Your task to perform on an android device: Open the web browser Image 0: 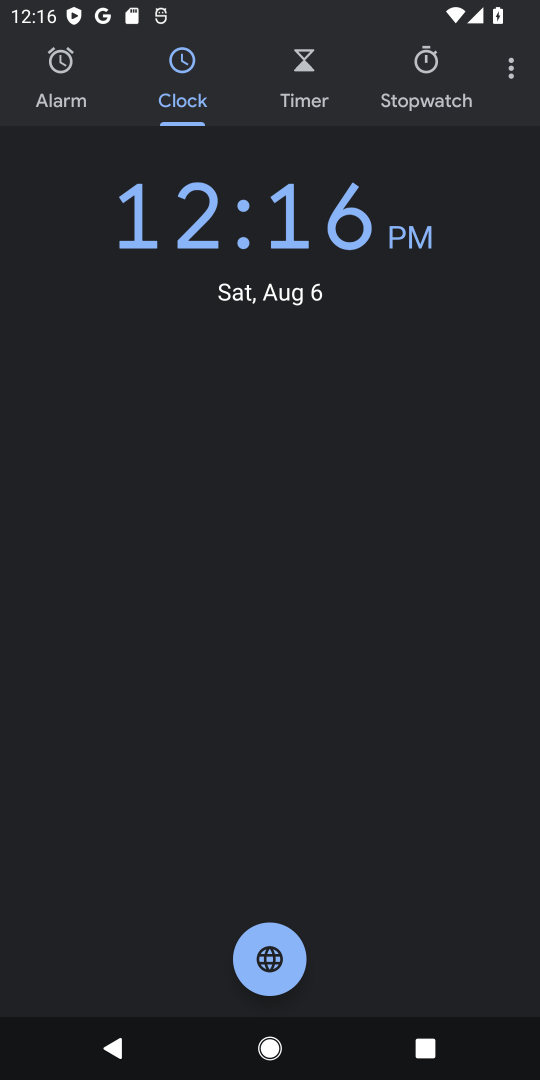
Step 0: press home button
Your task to perform on an android device: Open the web browser Image 1: 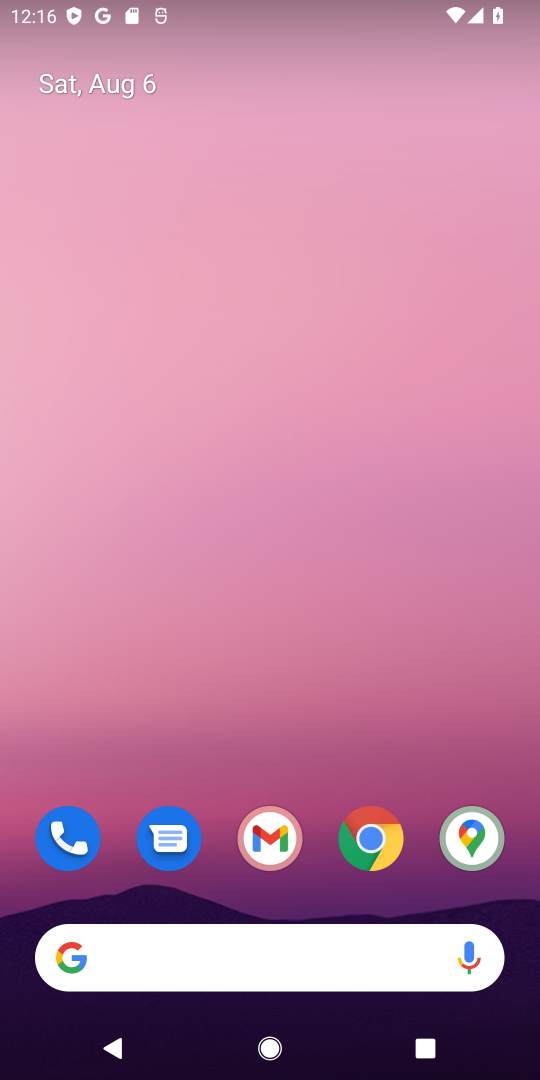
Step 1: click (371, 814)
Your task to perform on an android device: Open the web browser Image 2: 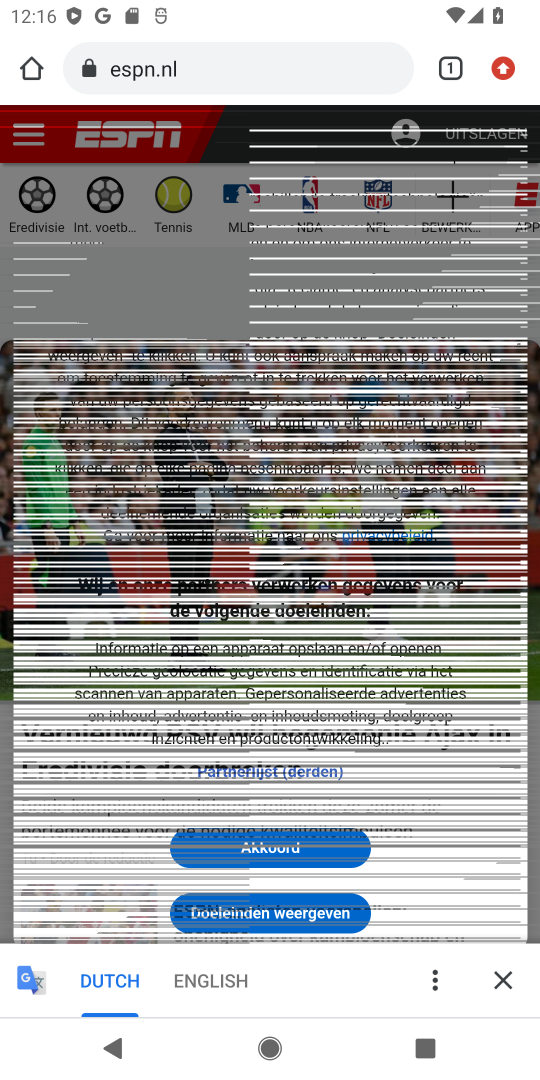
Step 2: task complete